Your task to perform on an android device: turn off notifications settings in the gmail app Image 0: 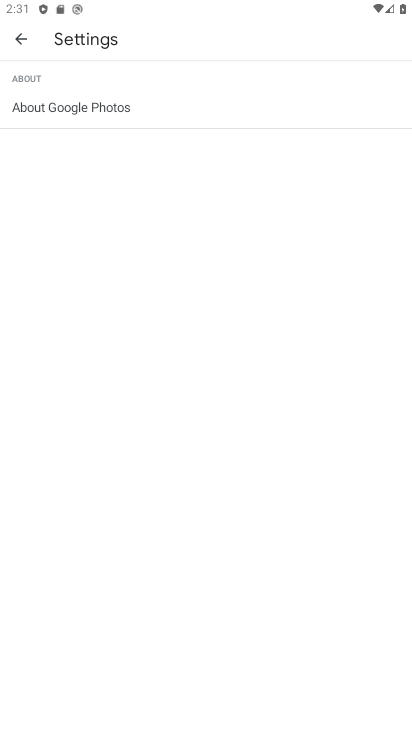
Step 0: press home button
Your task to perform on an android device: turn off notifications settings in the gmail app Image 1: 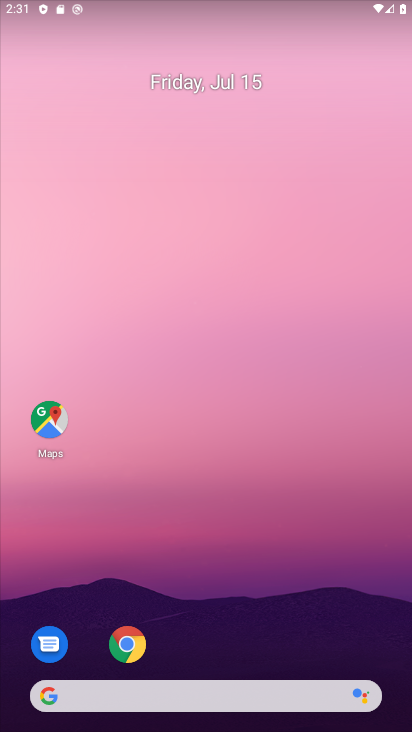
Step 1: drag from (260, 662) to (220, 7)
Your task to perform on an android device: turn off notifications settings in the gmail app Image 2: 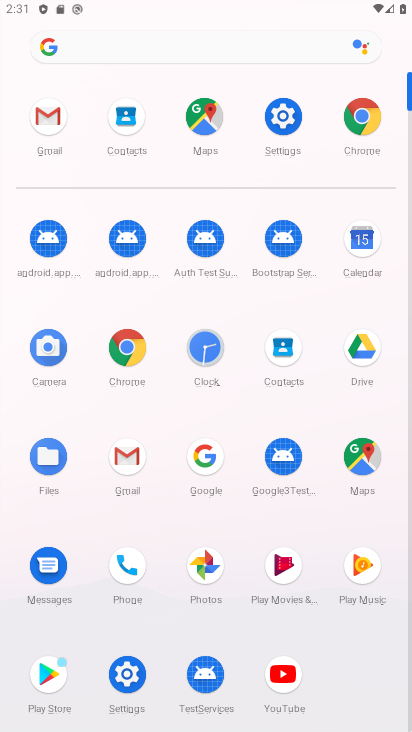
Step 2: click (130, 446)
Your task to perform on an android device: turn off notifications settings in the gmail app Image 3: 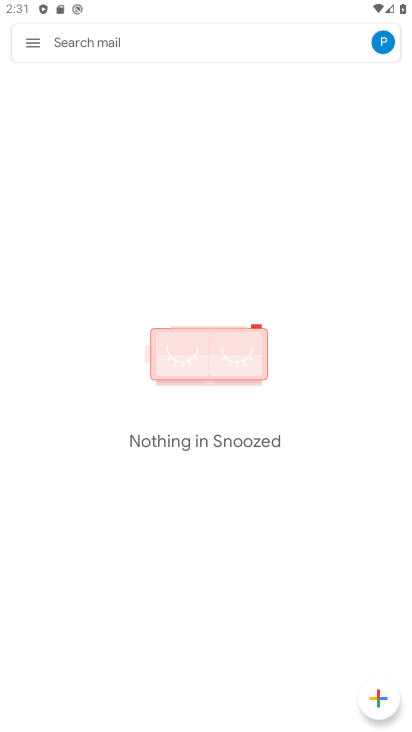
Step 3: click (24, 40)
Your task to perform on an android device: turn off notifications settings in the gmail app Image 4: 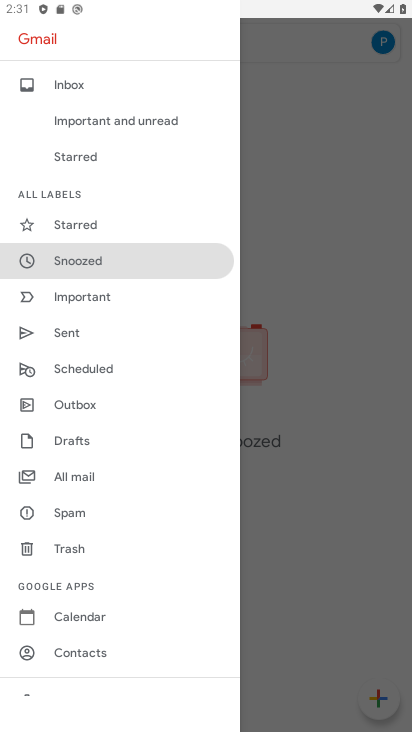
Step 4: drag from (89, 600) to (117, 284)
Your task to perform on an android device: turn off notifications settings in the gmail app Image 5: 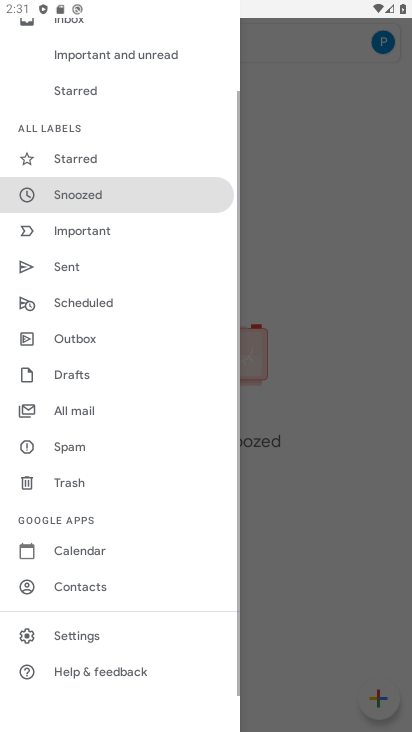
Step 5: click (104, 641)
Your task to perform on an android device: turn off notifications settings in the gmail app Image 6: 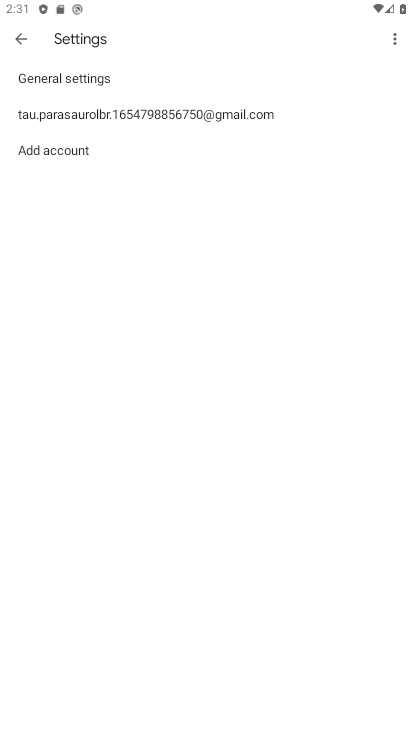
Step 6: click (99, 112)
Your task to perform on an android device: turn off notifications settings in the gmail app Image 7: 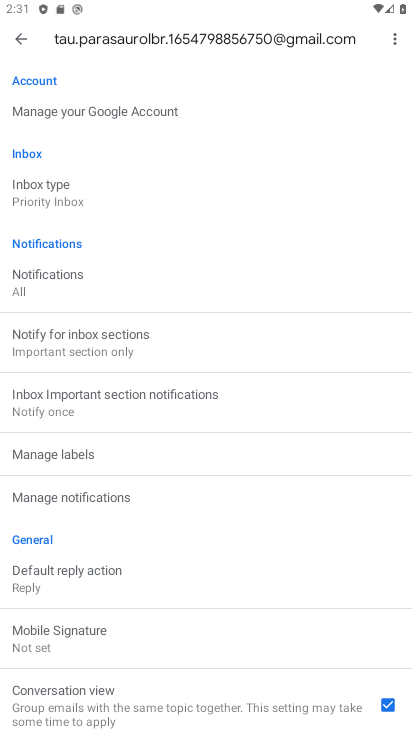
Step 7: click (121, 499)
Your task to perform on an android device: turn off notifications settings in the gmail app Image 8: 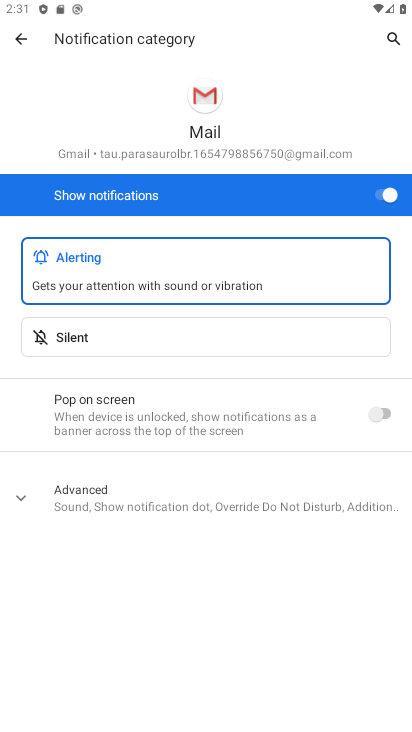
Step 8: click (376, 196)
Your task to perform on an android device: turn off notifications settings in the gmail app Image 9: 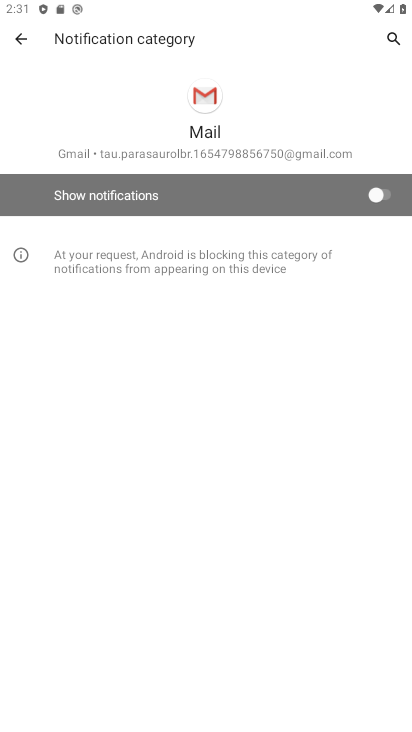
Step 9: task complete